Your task to perform on an android device: open sync settings in chrome Image 0: 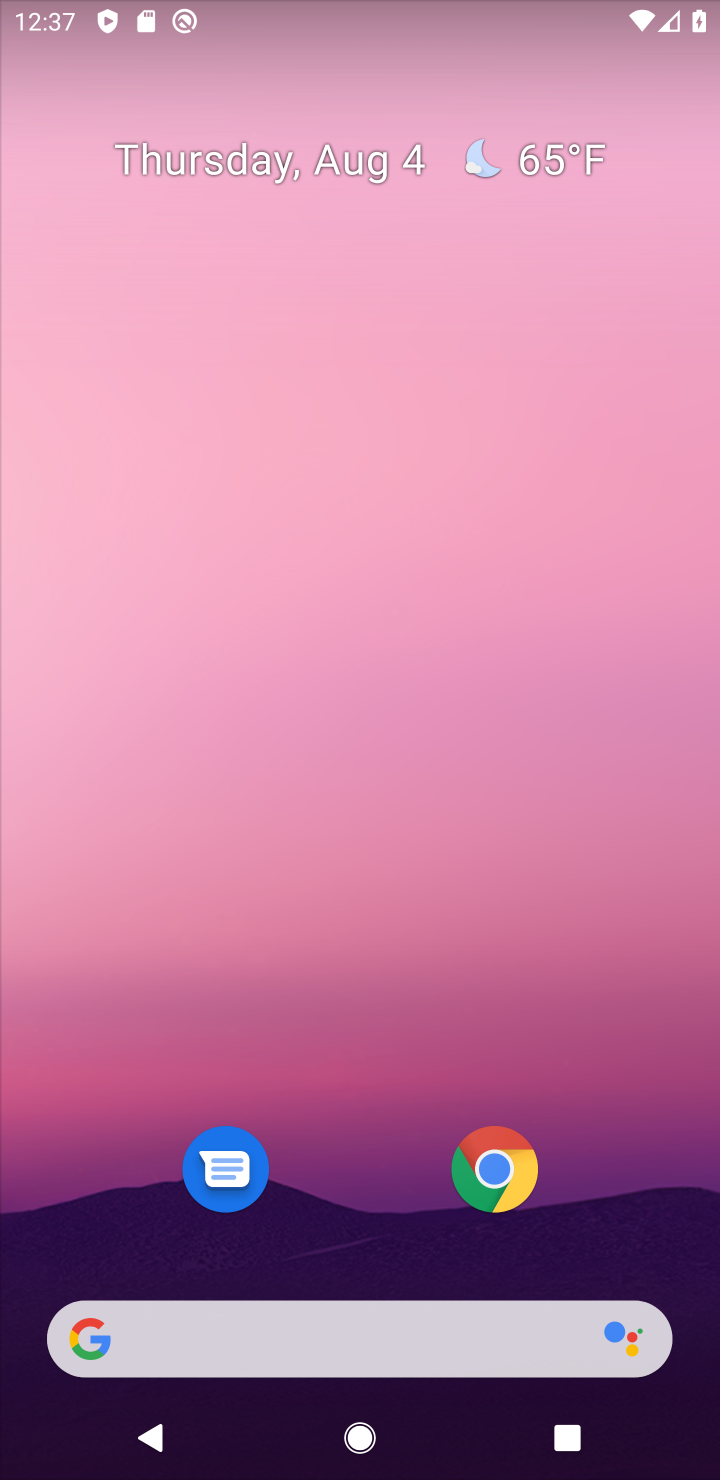
Step 0: click (521, 1176)
Your task to perform on an android device: open sync settings in chrome Image 1: 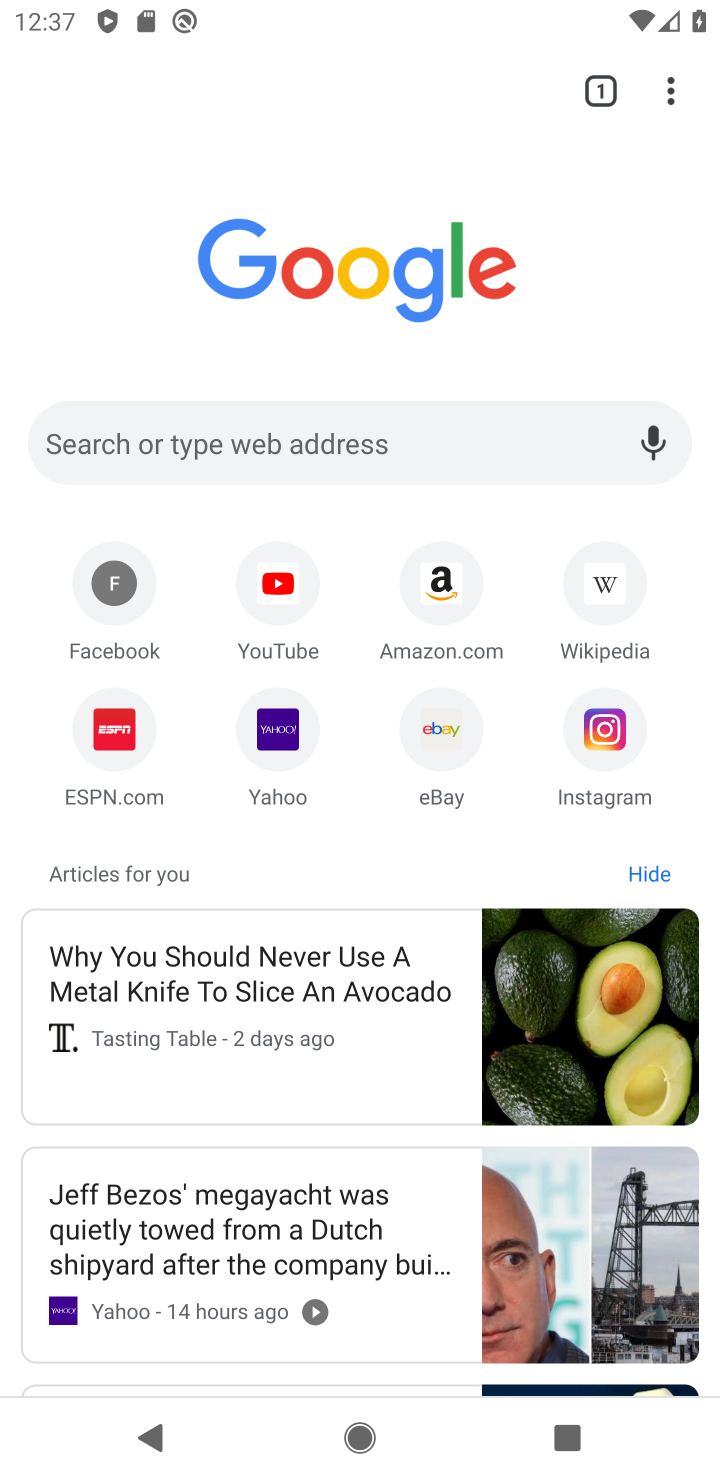
Step 1: click (667, 82)
Your task to perform on an android device: open sync settings in chrome Image 2: 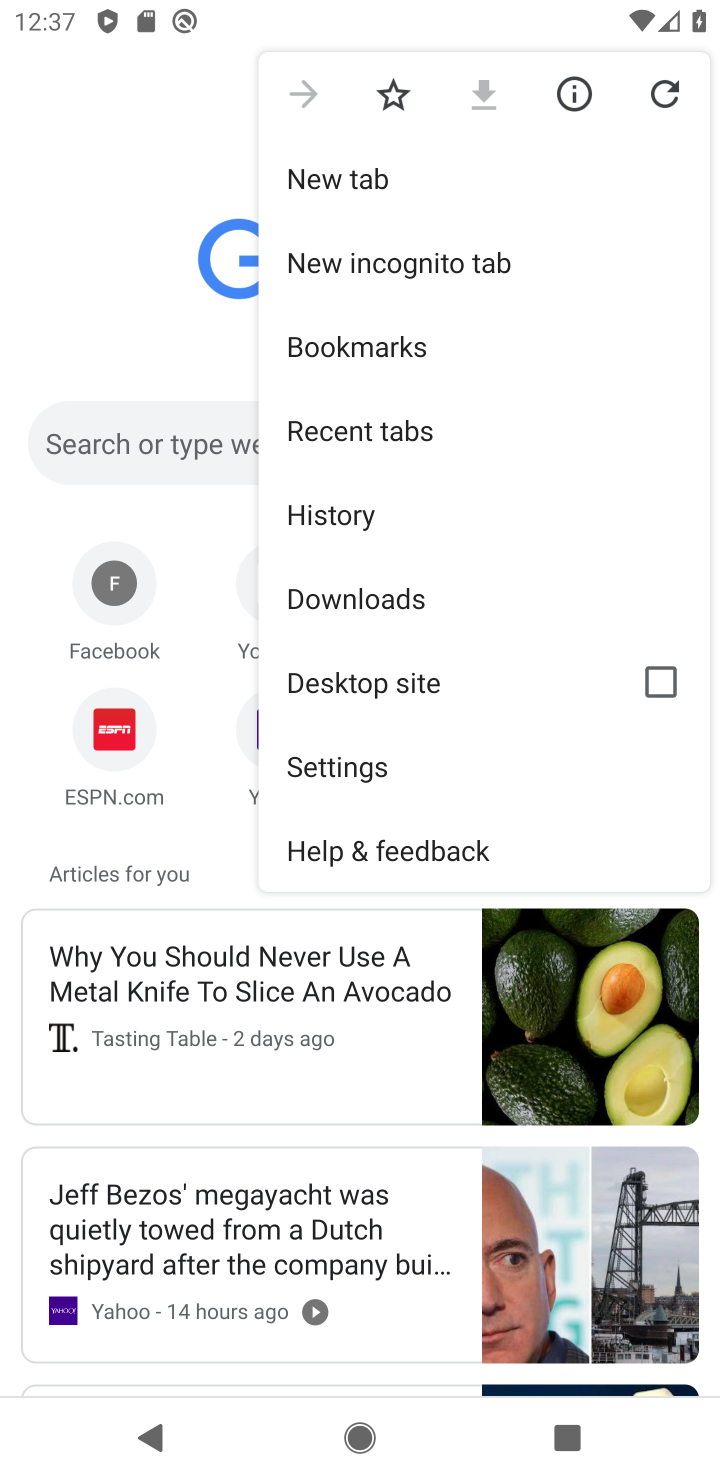
Step 2: click (377, 780)
Your task to perform on an android device: open sync settings in chrome Image 3: 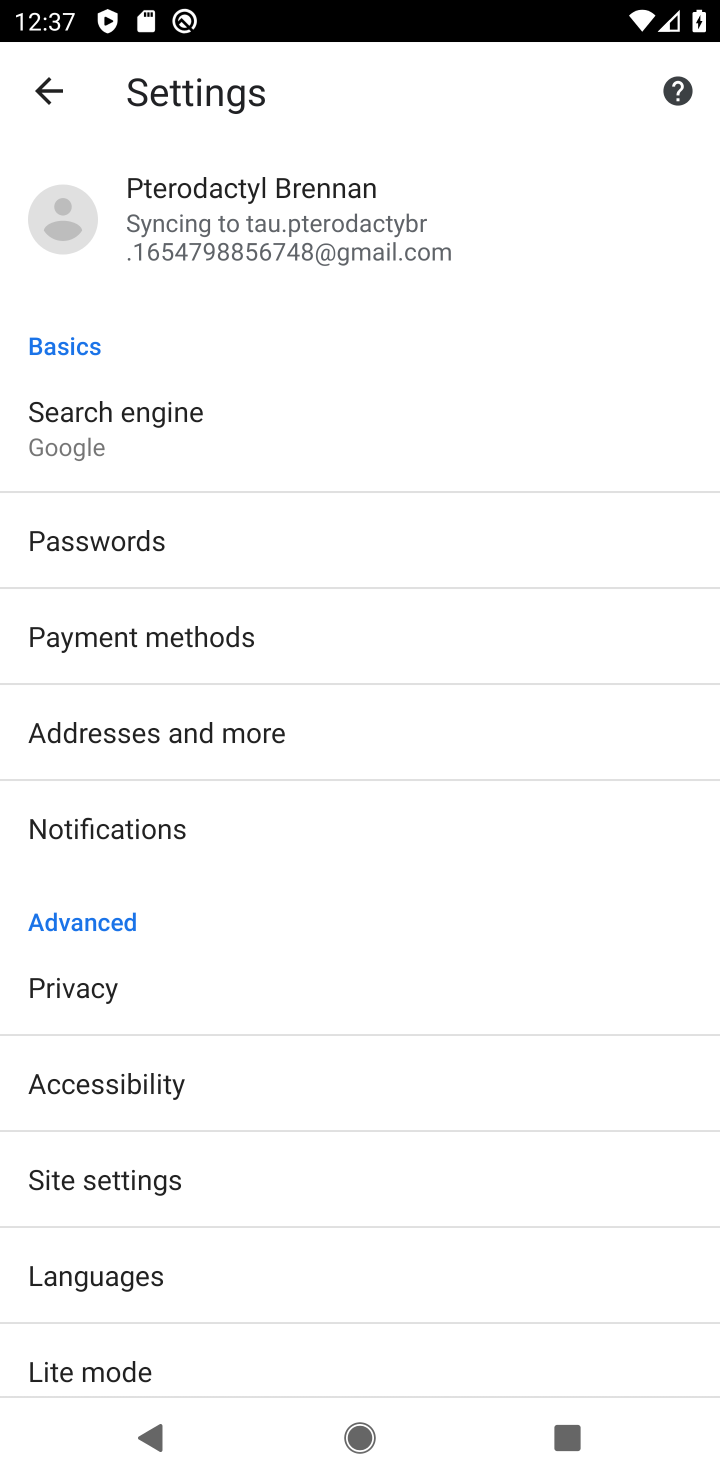
Step 3: click (230, 1208)
Your task to perform on an android device: open sync settings in chrome Image 4: 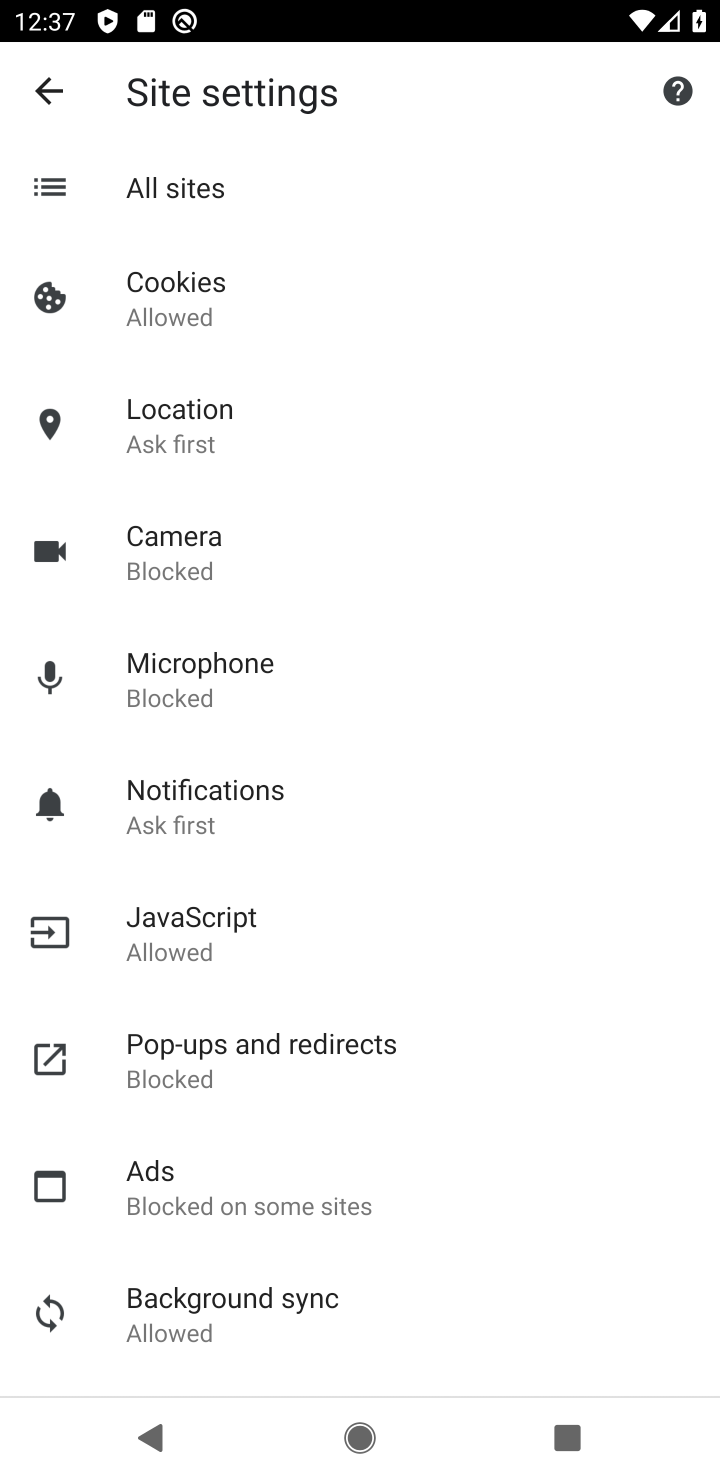
Step 4: click (269, 1306)
Your task to perform on an android device: open sync settings in chrome Image 5: 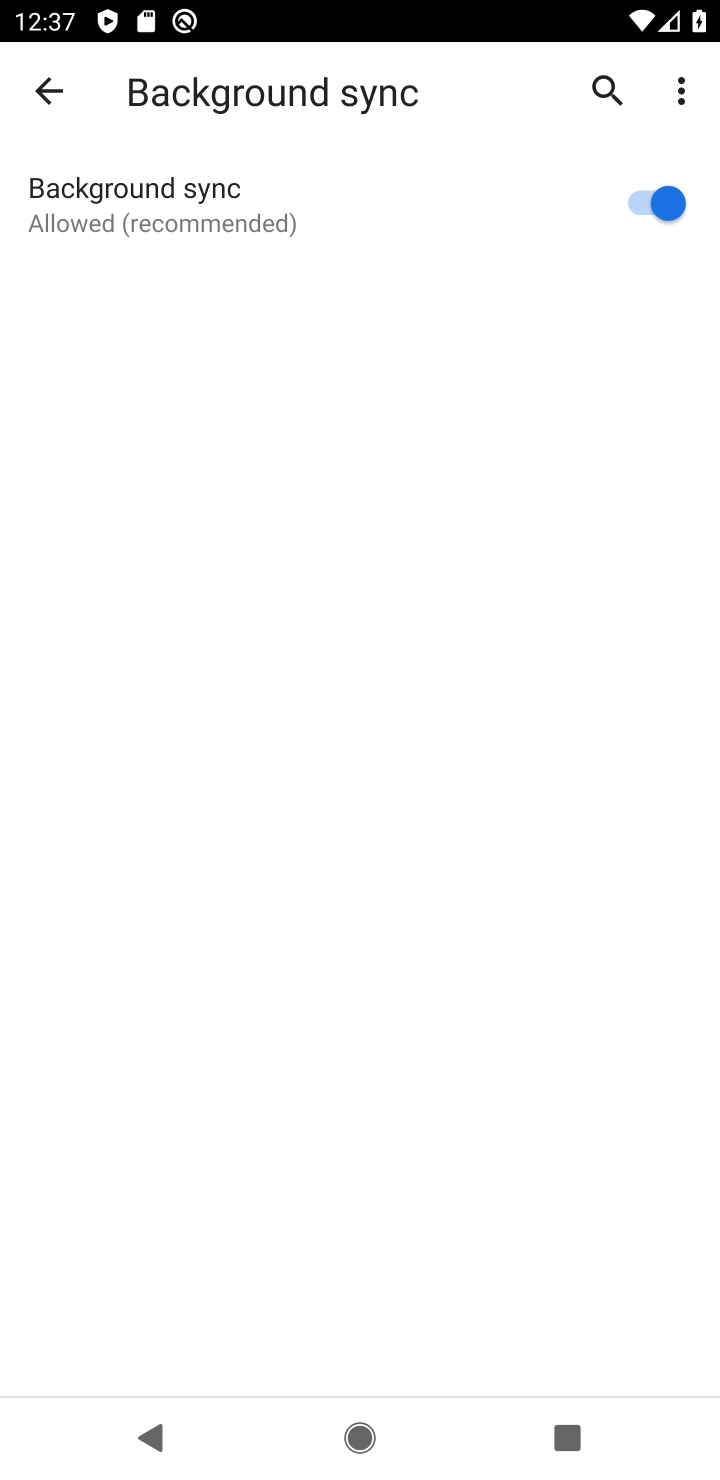
Step 5: task complete